Your task to perform on an android device: change the clock display to digital Image 0: 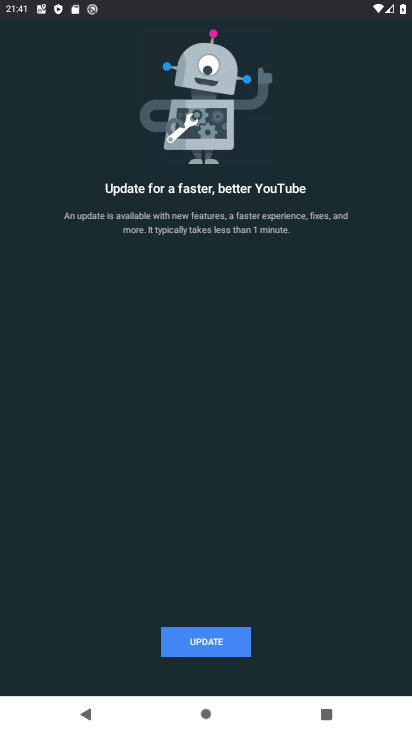
Step 0: press home button
Your task to perform on an android device: change the clock display to digital Image 1: 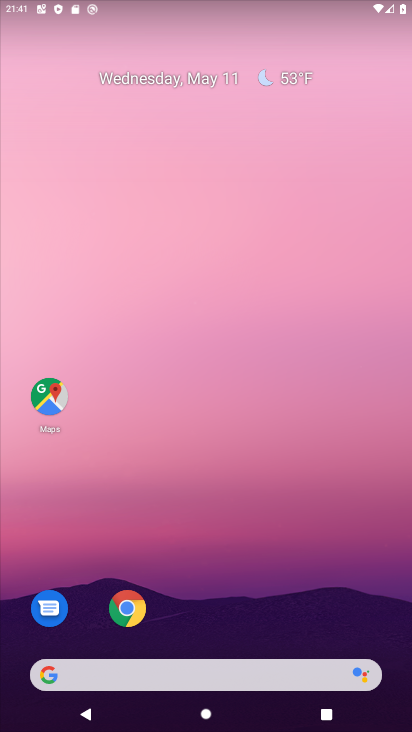
Step 1: drag from (297, 555) to (356, 119)
Your task to perform on an android device: change the clock display to digital Image 2: 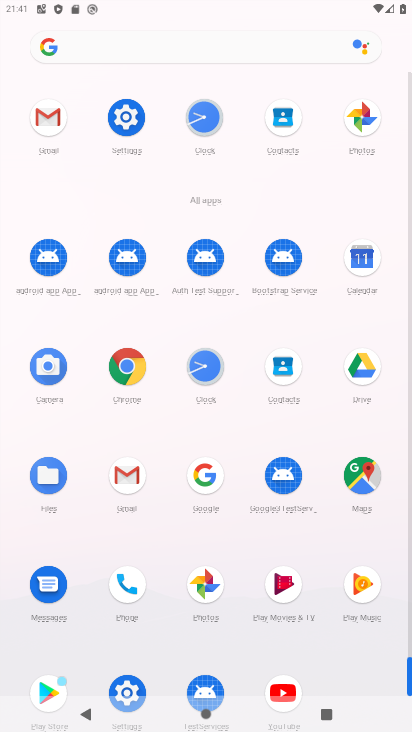
Step 2: drag from (196, 371) to (275, 371)
Your task to perform on an android device: change the clock display to digital Image 3: 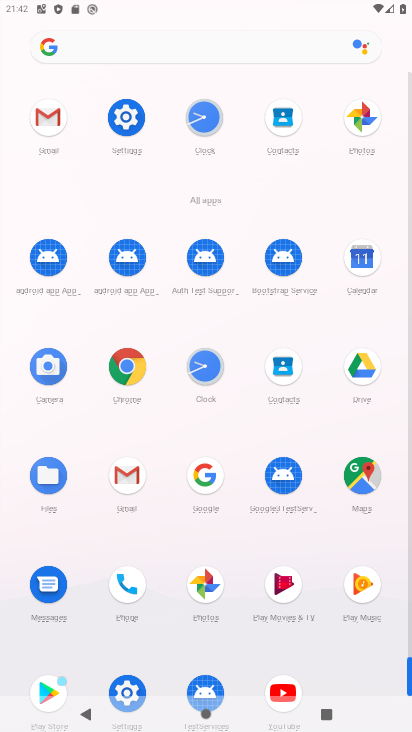
Step 3: click (167, 370)
Your task to perform on an android device: change the clock display to digital Image 4: 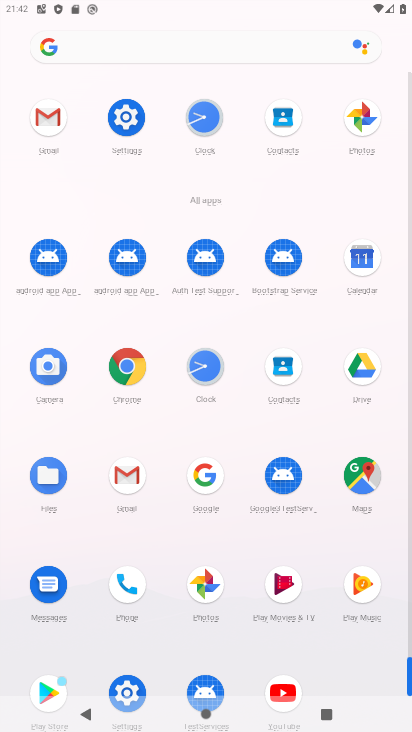
Step 4: click (192, 373)
Your task to perform on an android device: change the clock display to digital Image 5: 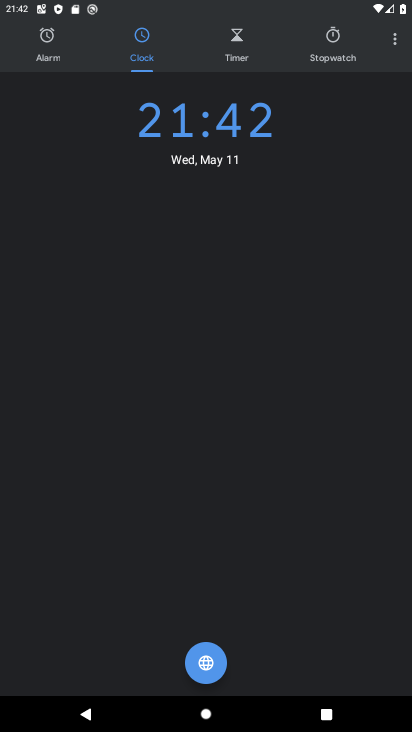
Step 5: click (394, 47)
Your task to perform on an android device: change the clock display to digital Image 6: 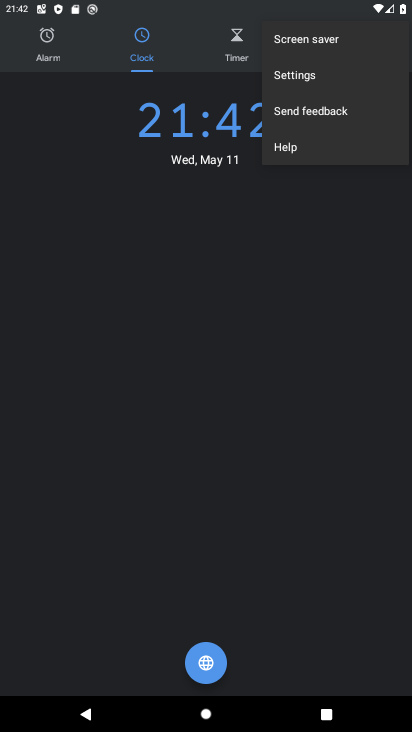
Step 6: click (304, 80)
Your task to perform on an android device: change the clock display to digital Image 7: 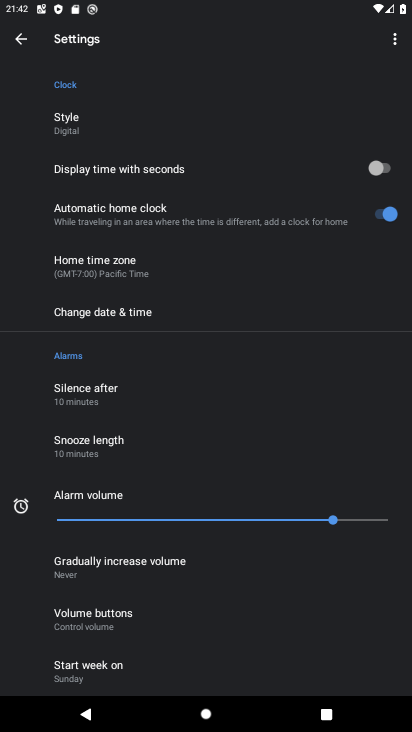
Step 7: task complete